Your task to perform on an android device: open app "Google Maps" Image 0: 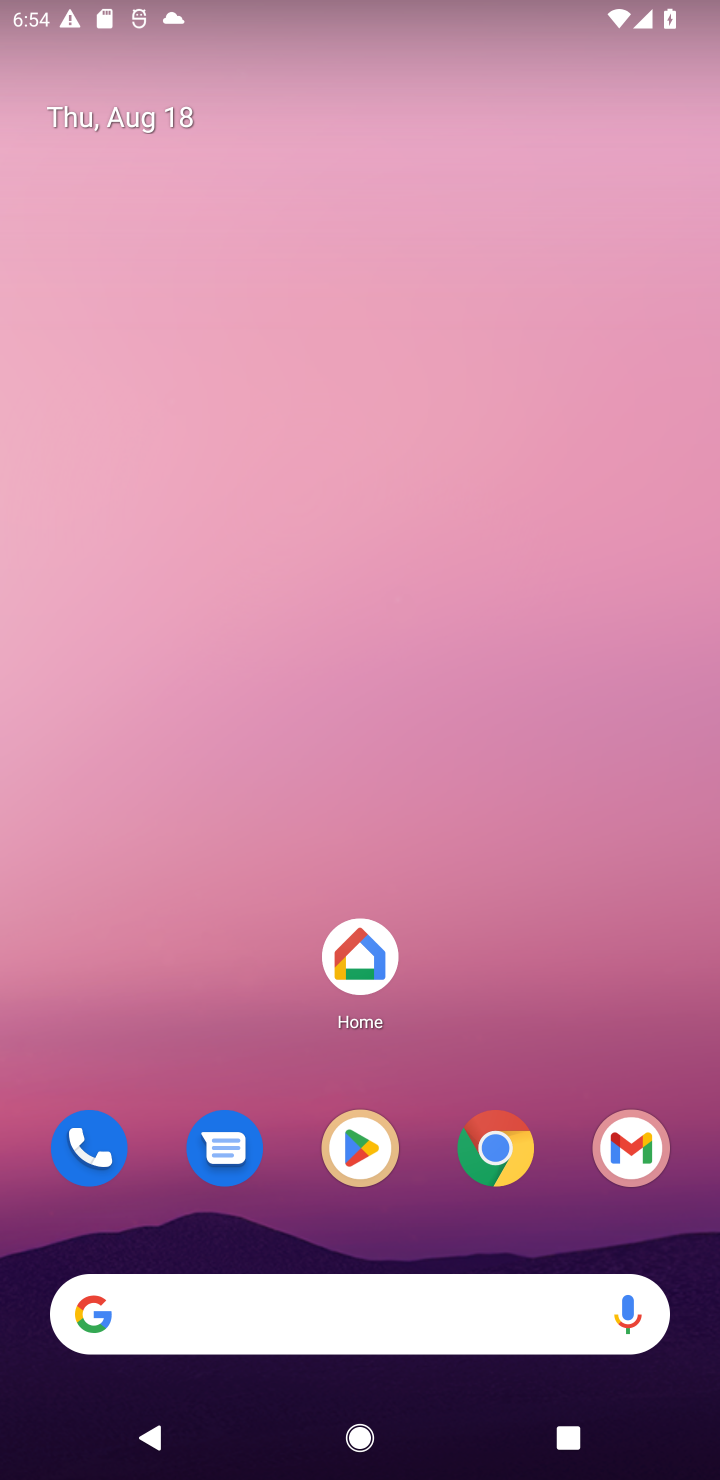
Step 0: drag from (391, 1179) to (690, 183)
Your task to perform on an android device: open app "Google Maps" Image 1: 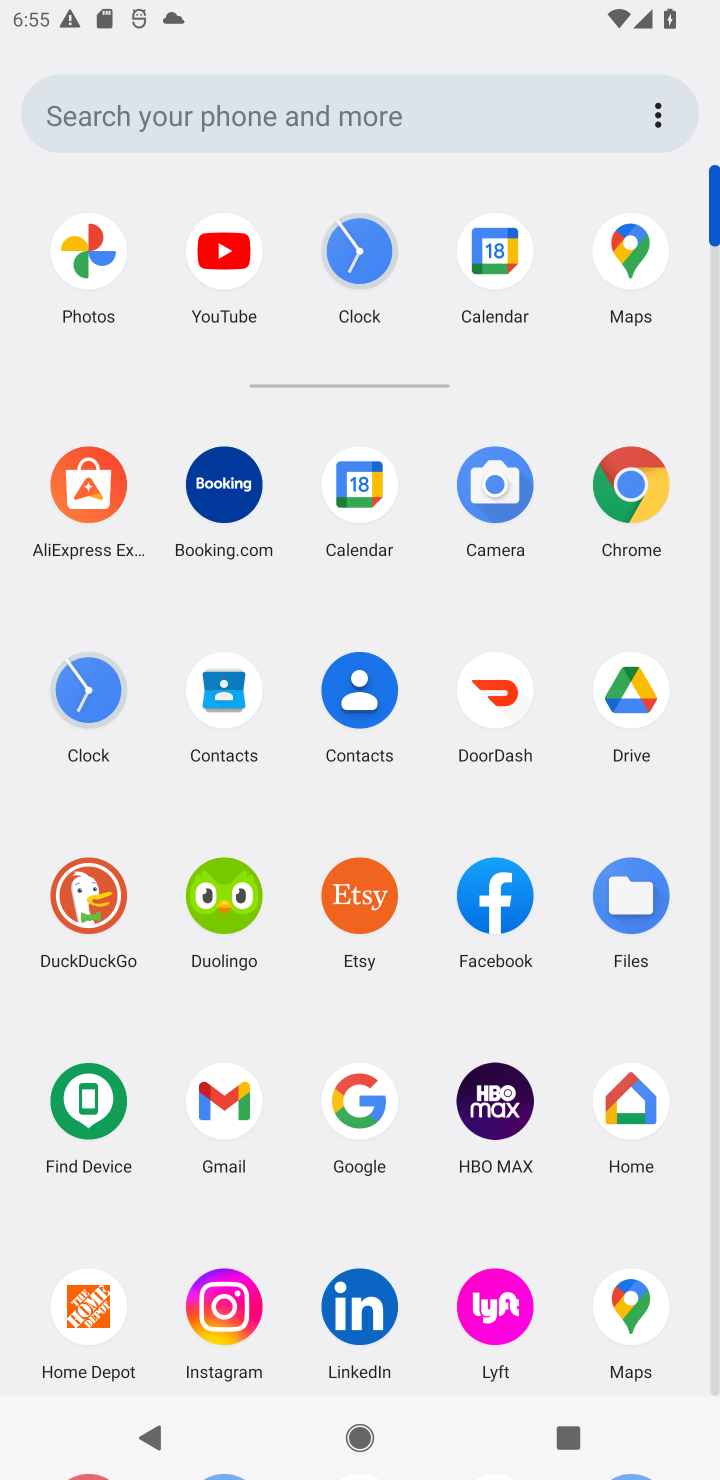
Step 1: drag from (473, 1241) to (616, 355)
Your task to perform on an android device: open app "Google Maps" Image 2: 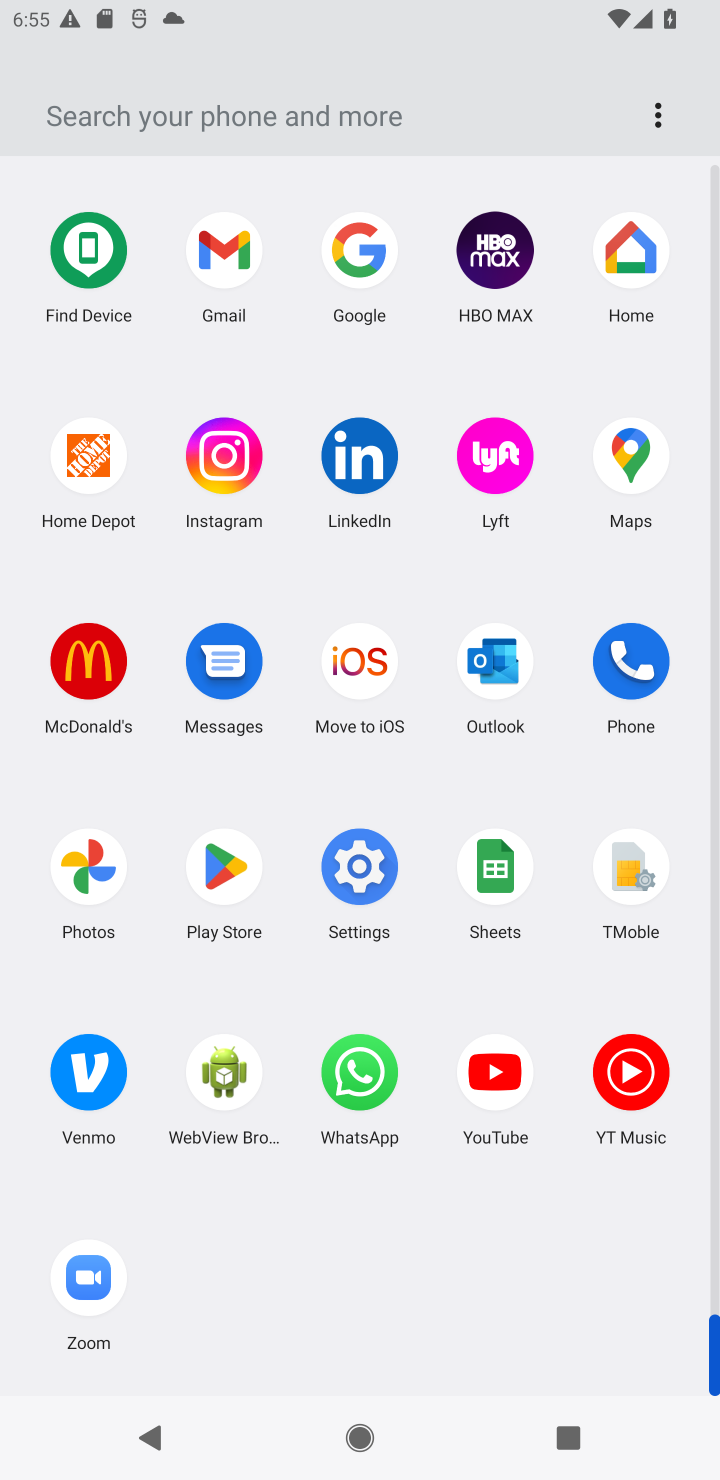
Step 2: click (212, 869)
Your task to perform on an android device: open app "Google Maps" Image 3: 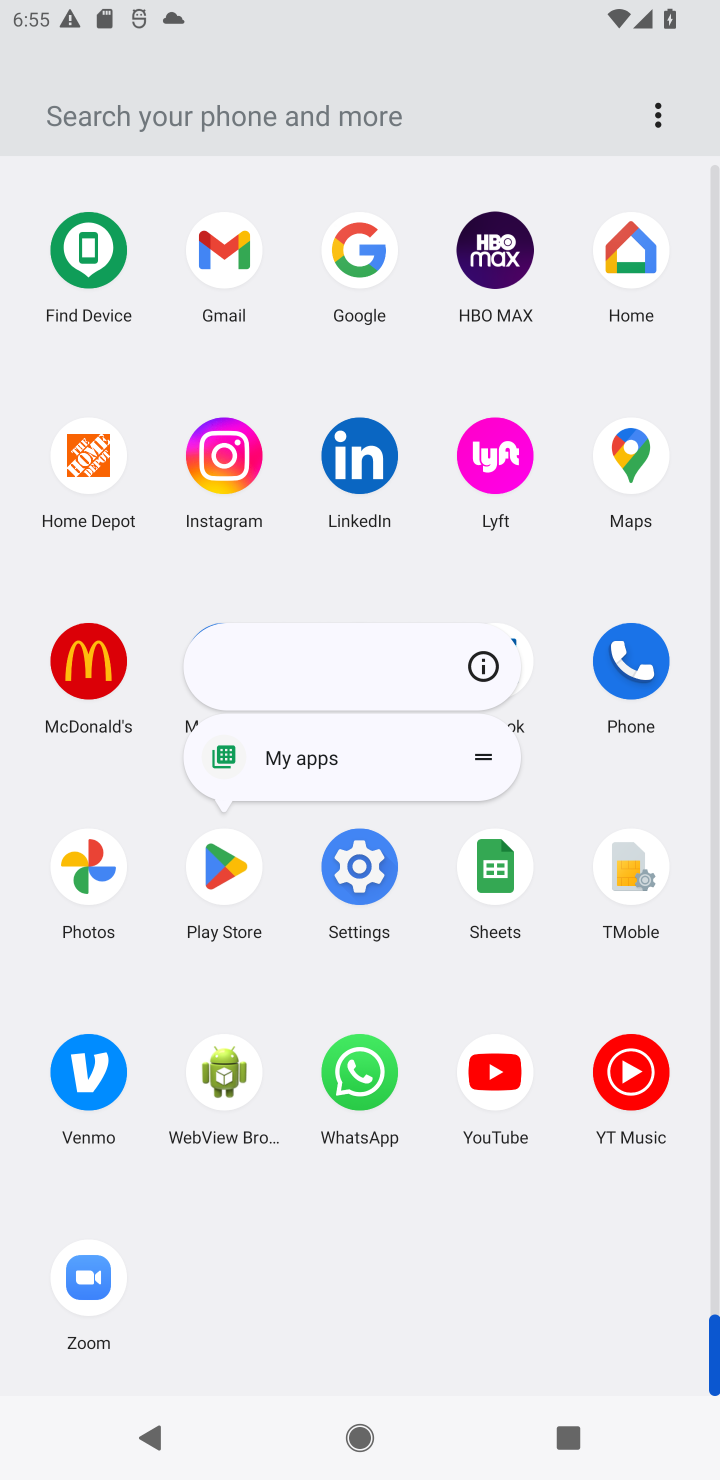
Step 3: click (214, 864)
Your task to perform on an android device: open app "Google Maps" Image 4: 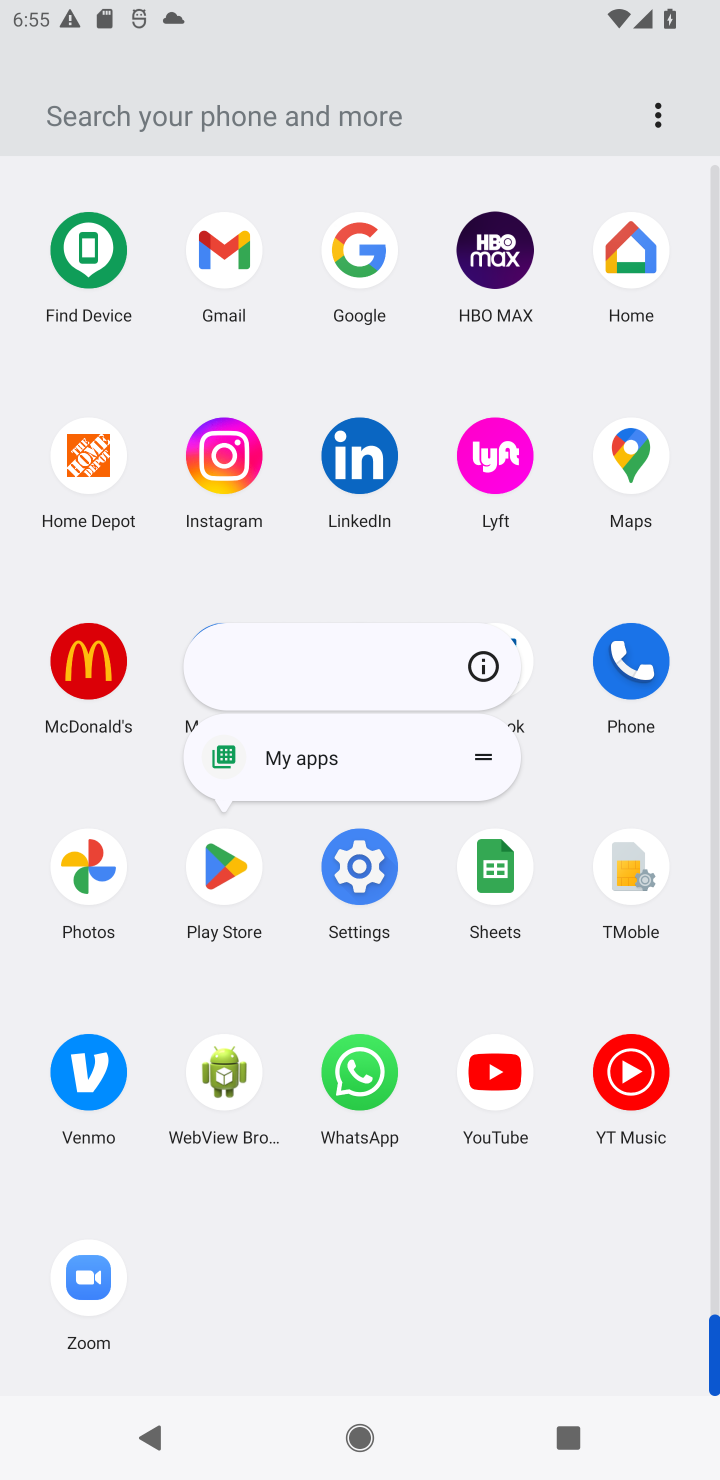
Step 4: click (214, 866)
Your task to perform on an android device: open app "Google Maps" Image 5: 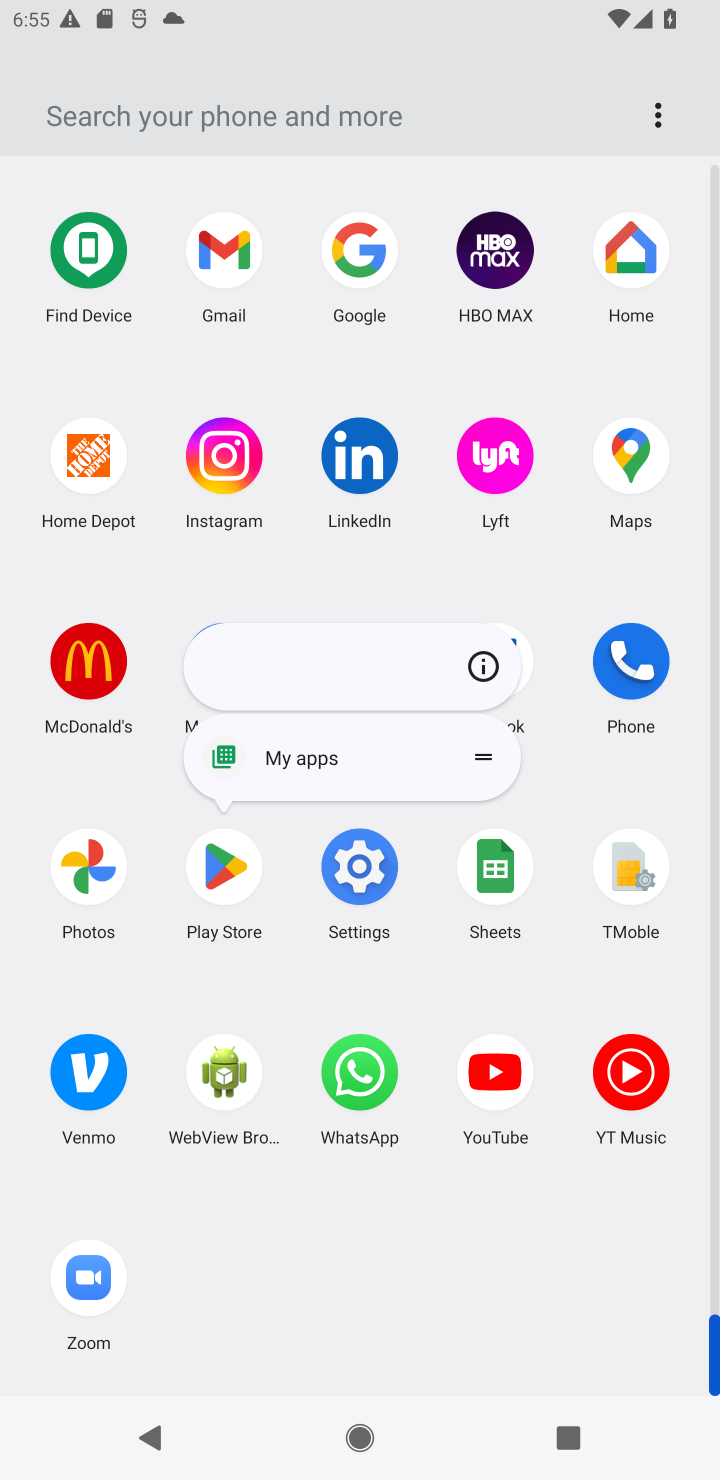
Step 5: click (216, 862)
Your task to perform on an android device: open app "Google Maps" Image 6: 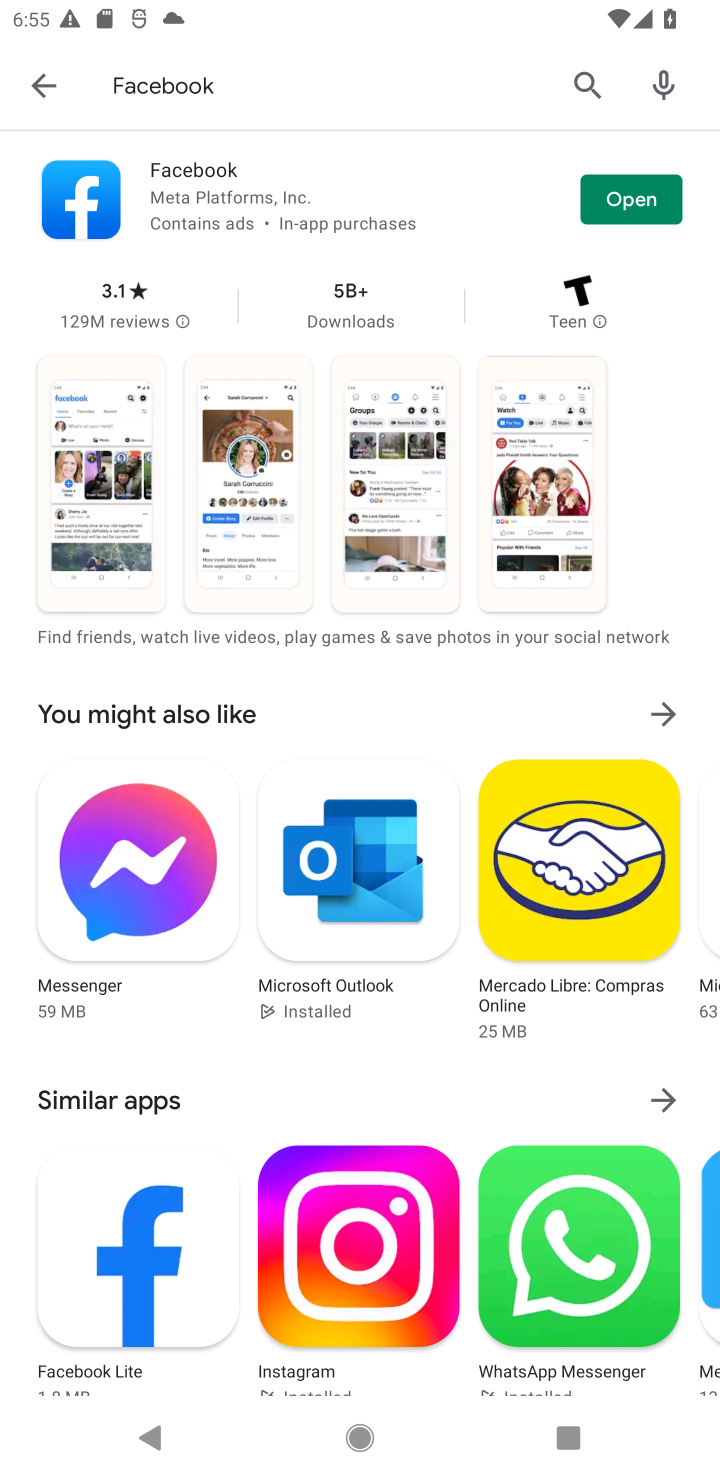
Step 6: press back button
Your task to perform on an android device: open app "Google Maps" Image 7: 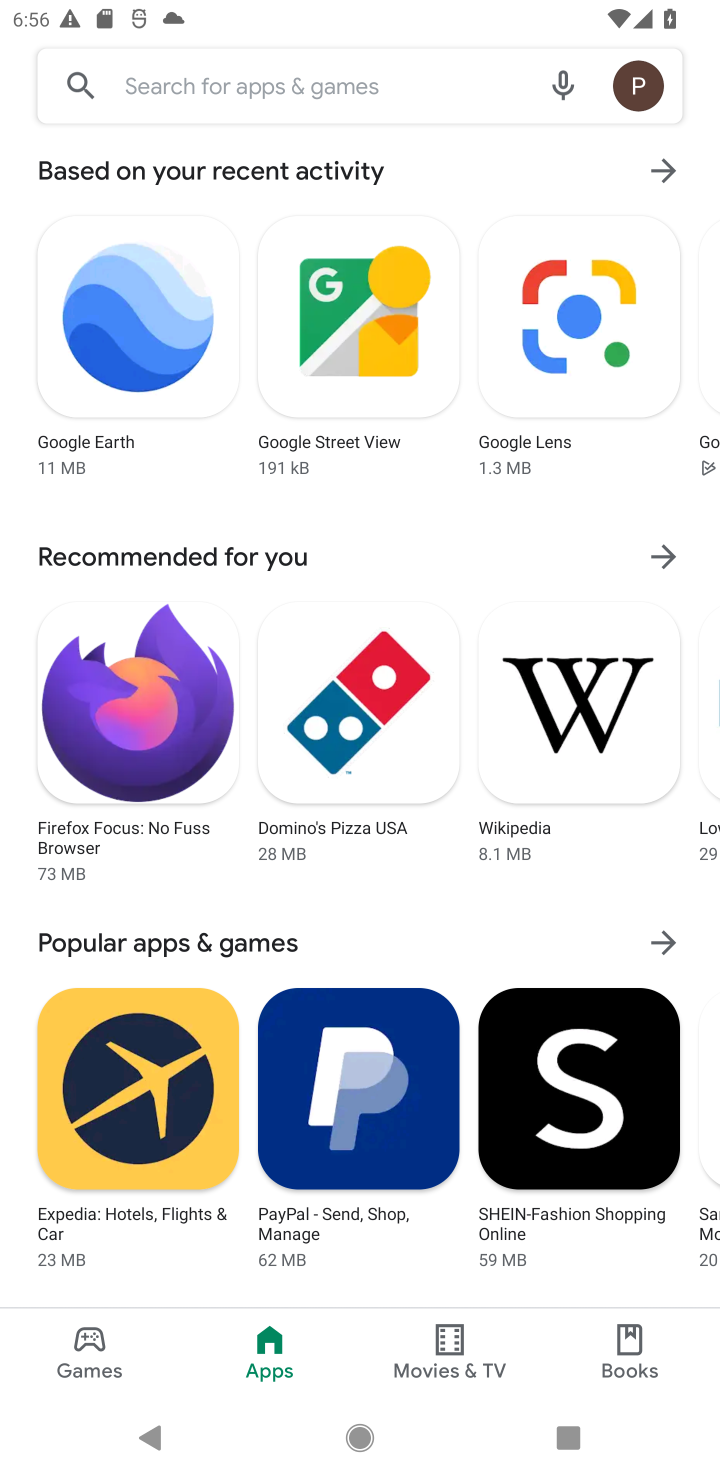
Step 7: click (352, 101)
Your task to perform on an android device: open app "Google Maps" Image 8: 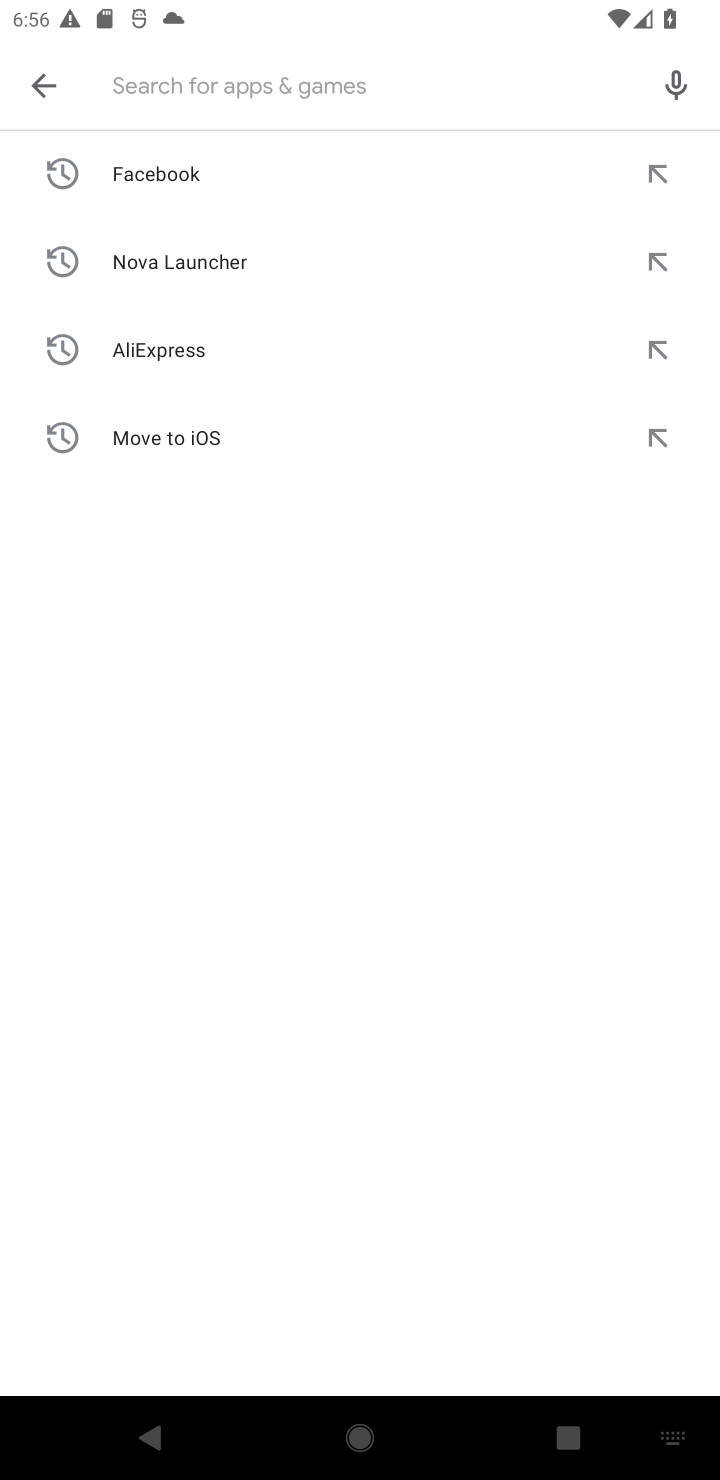
Step 8: type "Google Maps"
Your task to perform on an android device: open app "Google Maps" Image 9: 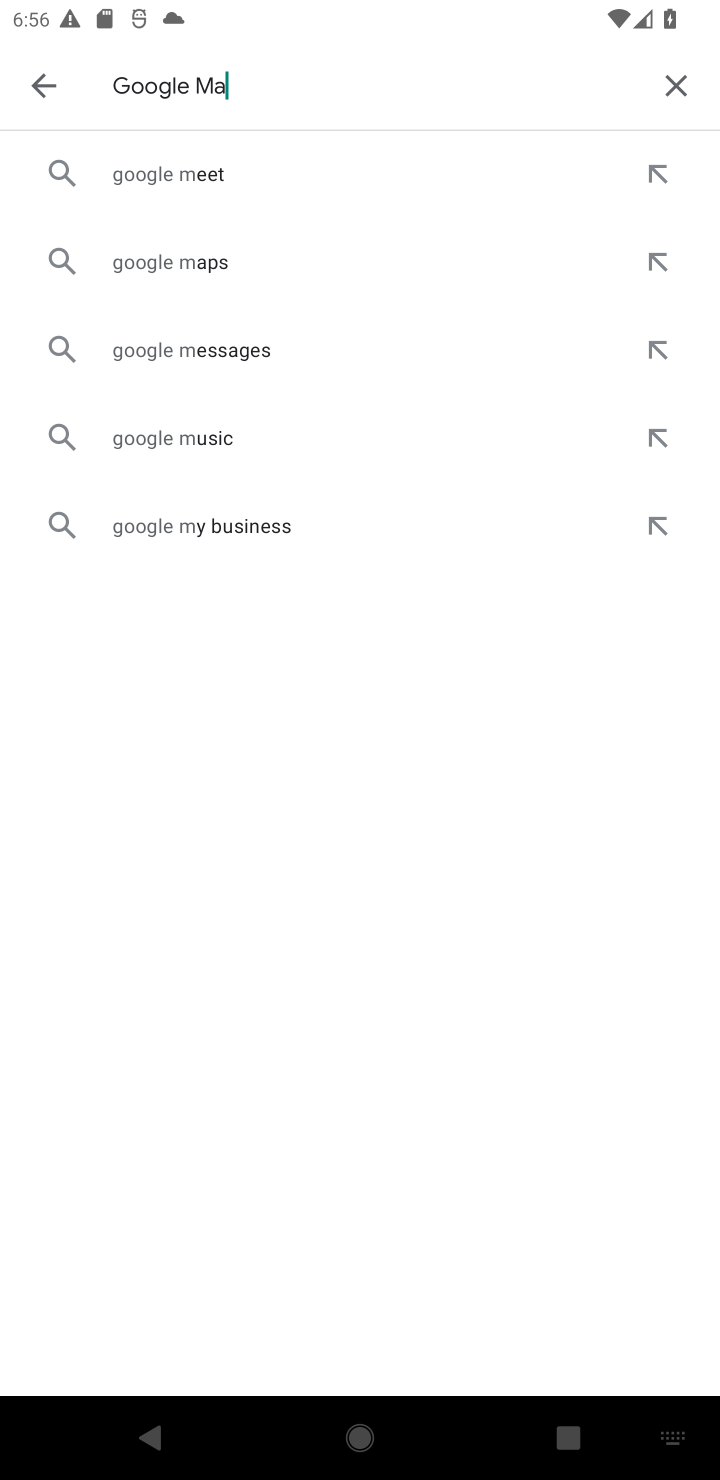
Step 9: press enter
Your task to perform on an android device: open app "Google Maps" Image 10: 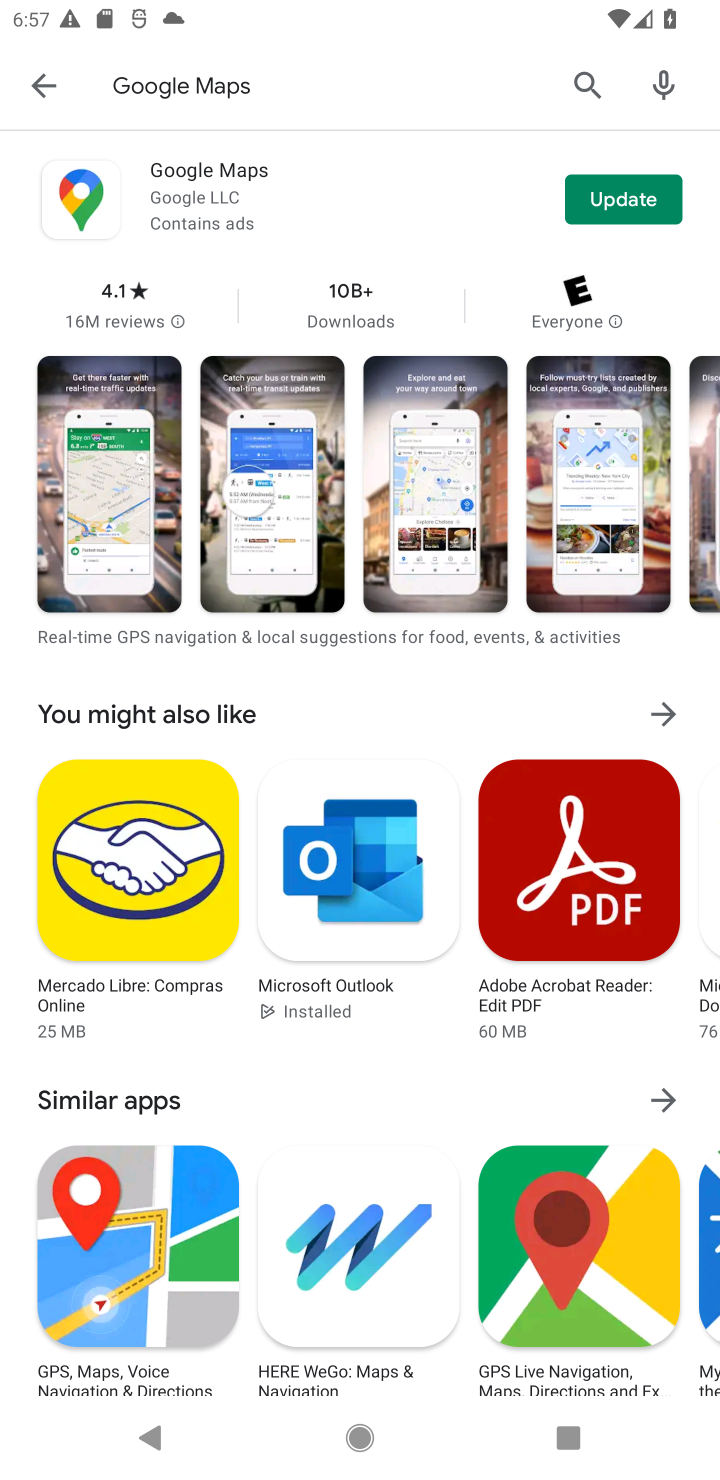
Step 10: click (616, 194)
Your task to perform on an android device: open app "Google Maps" Image 11: 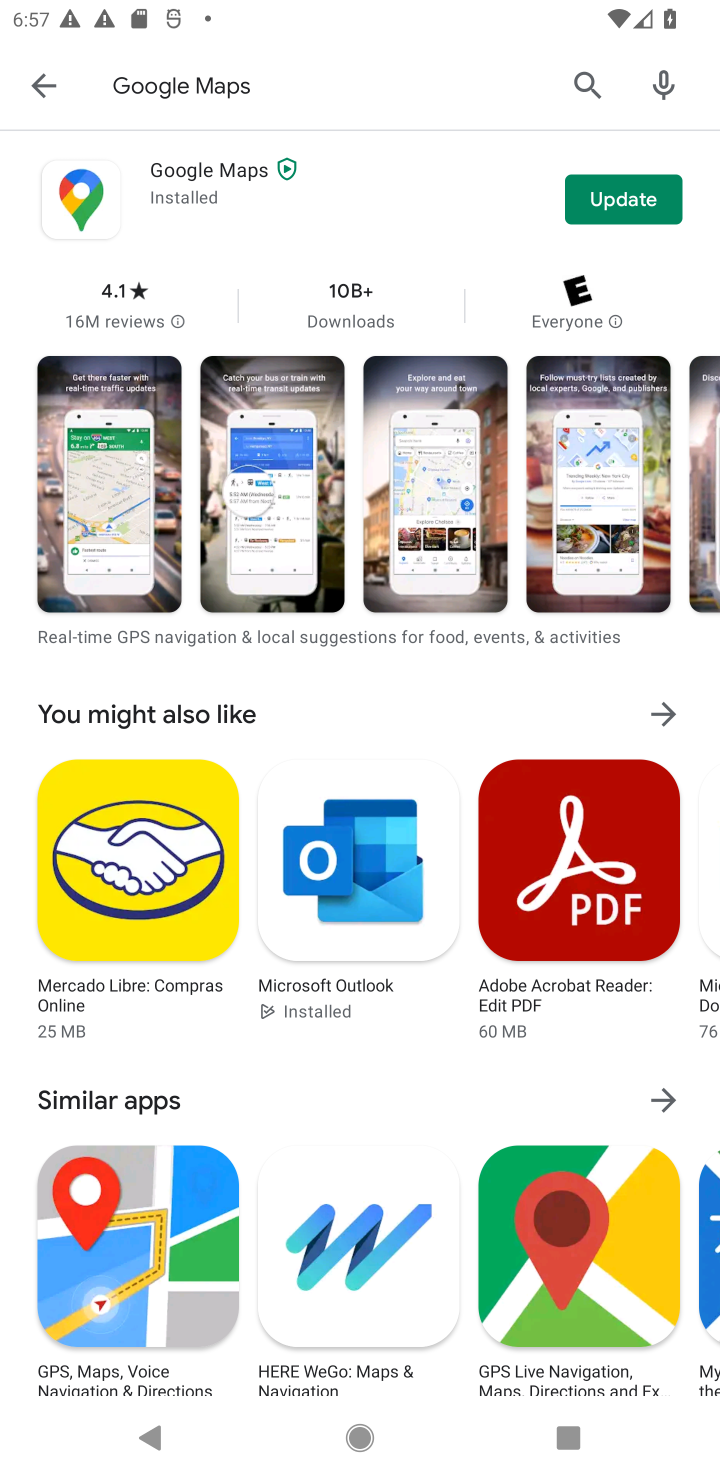
Step 11: click (619, 200)
Your task to perform on an android device: open app "Google Maps" Image 12: 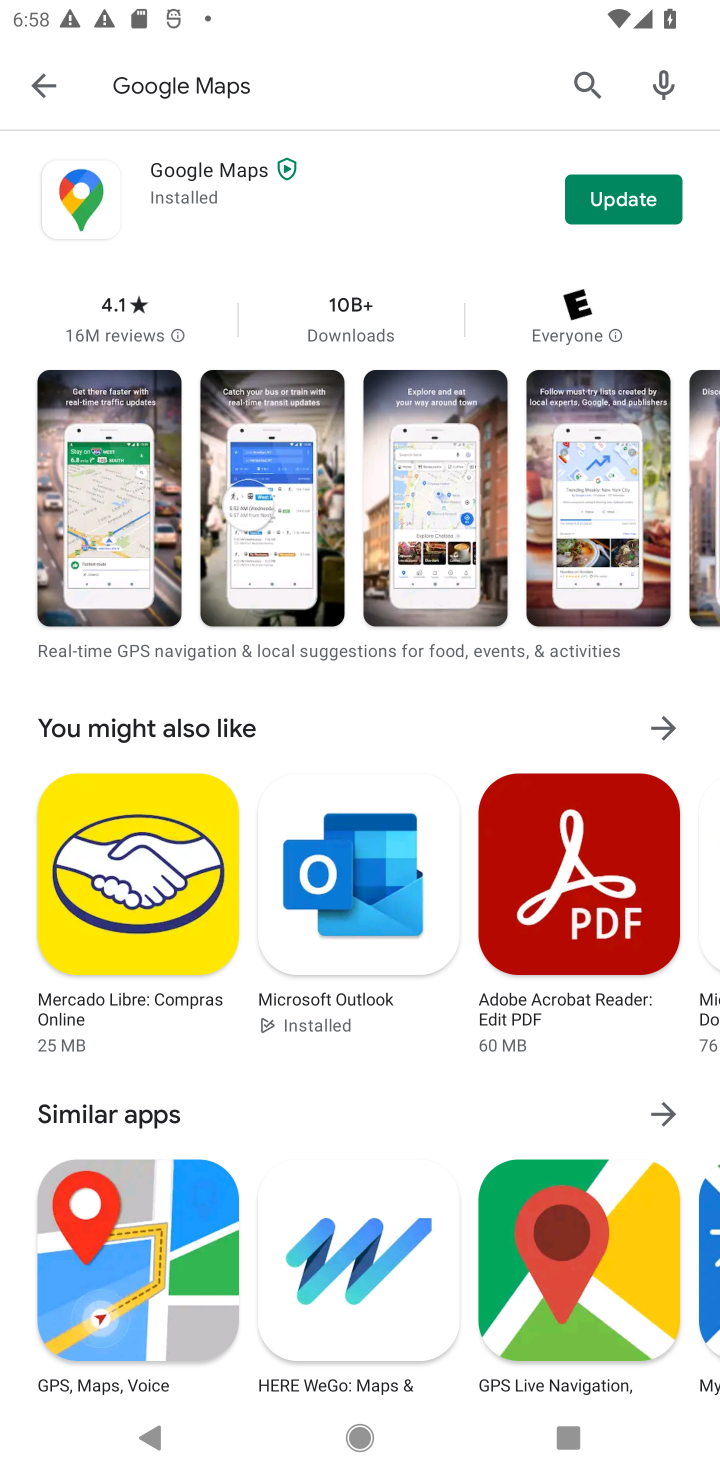
Step 12: click (640, 195)
Your task to perform on an android device: open app "Google Maps" Image 13: 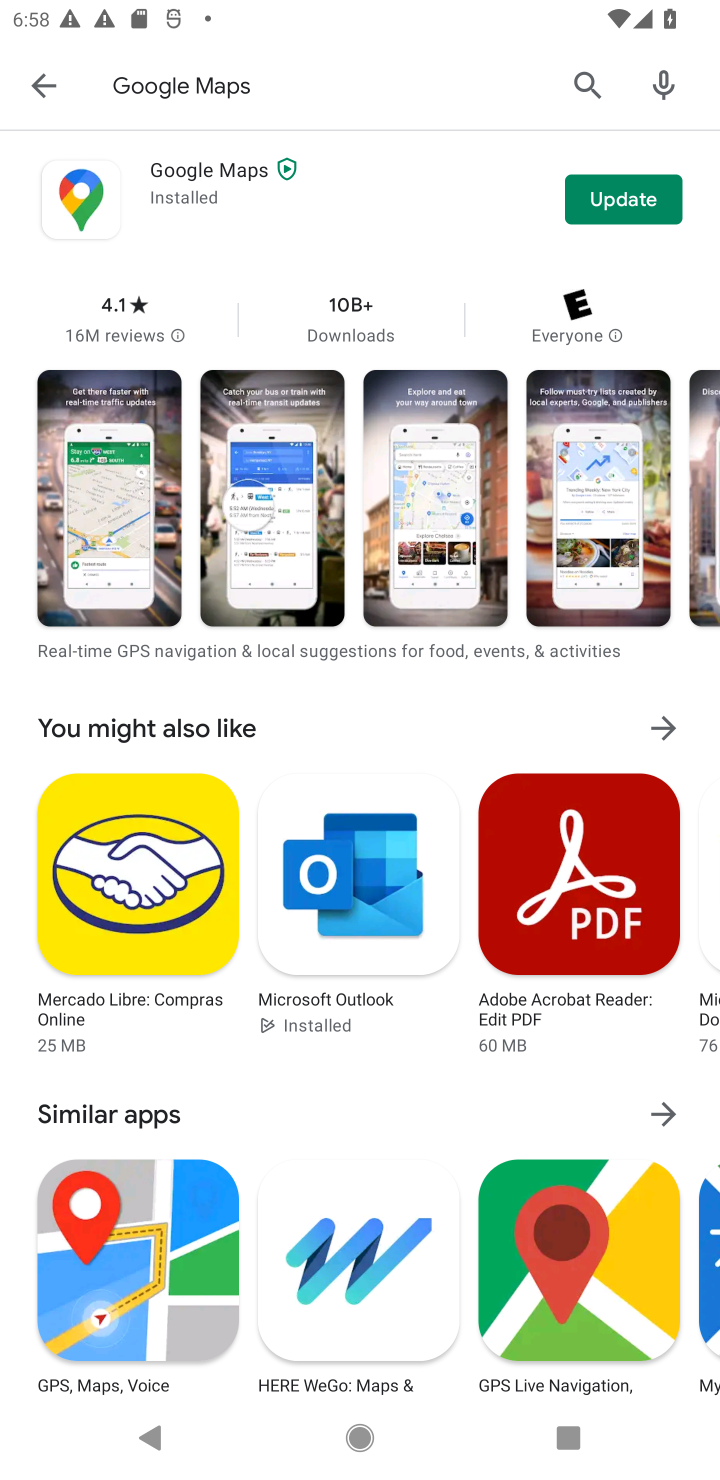
Step 13: click (644, 202)
Your task to perform on an android device: open app "Google Maps" Image 14: 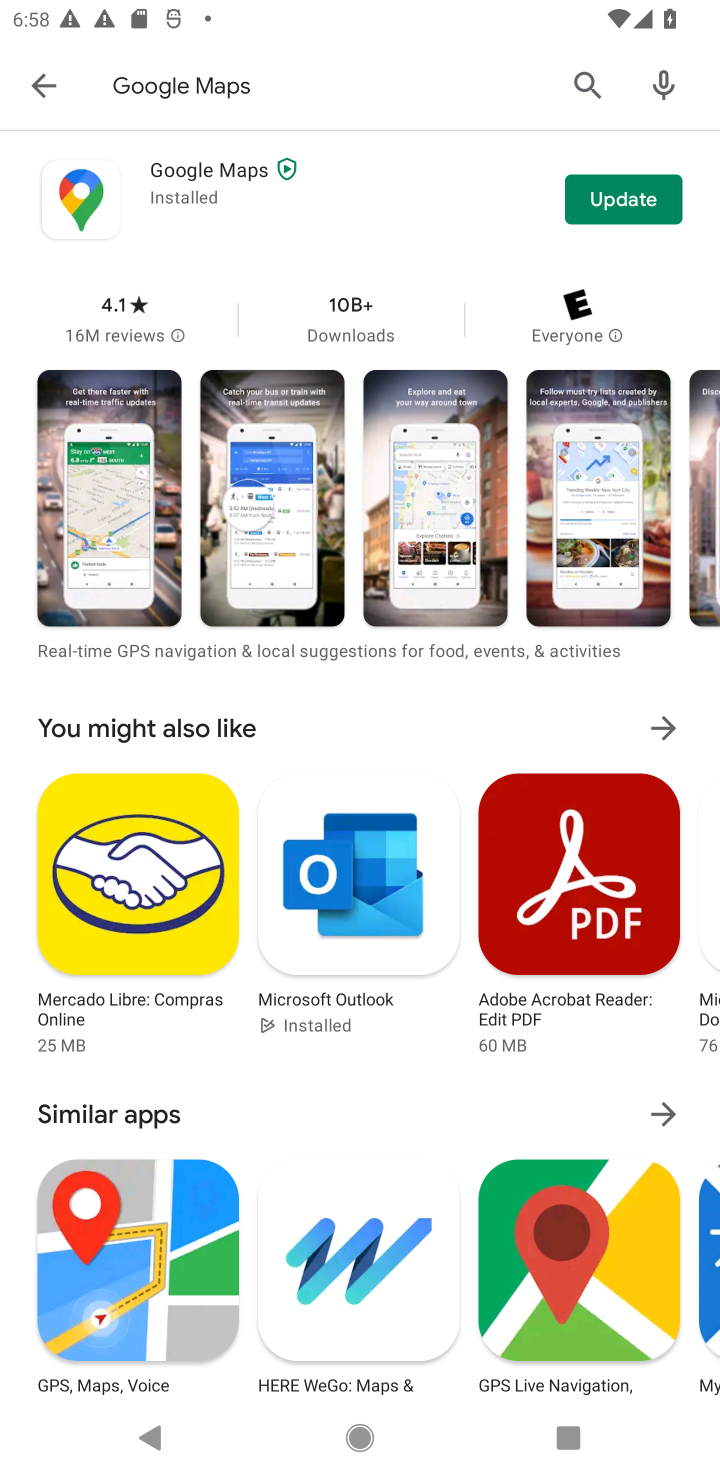
Step 14: task complete